Your task to perform on an android device: Do I have any events tomorrow? Image 0: 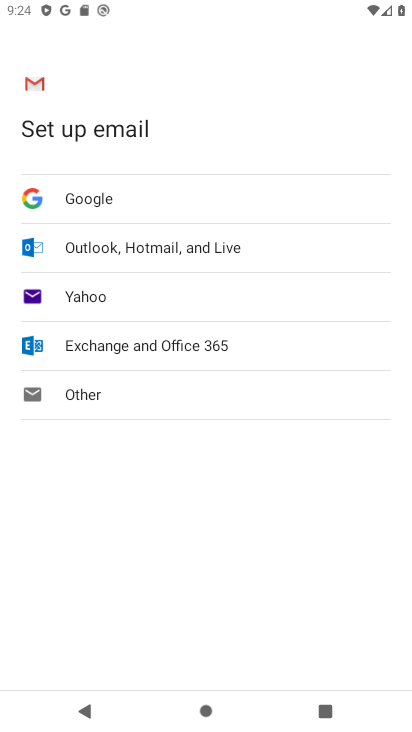
Step 0: press home button
Your task to perform on an android device: Do I have any events tomorrow? Image 1: 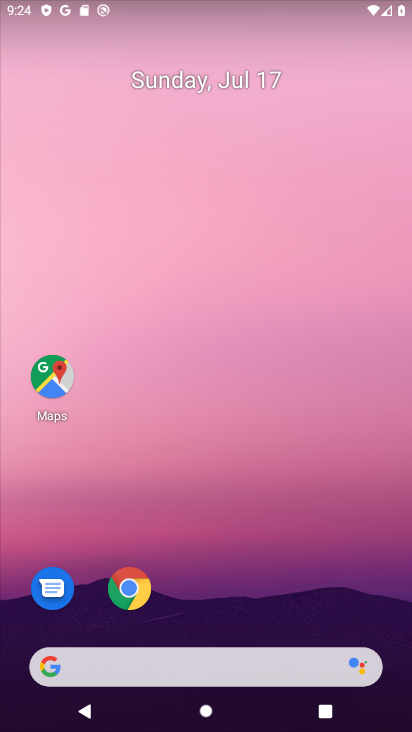
Step 1: drag from (210, 613) to (156, 104)
Your task to perform on an android device: Do I have any events tomorrow? Image 2: 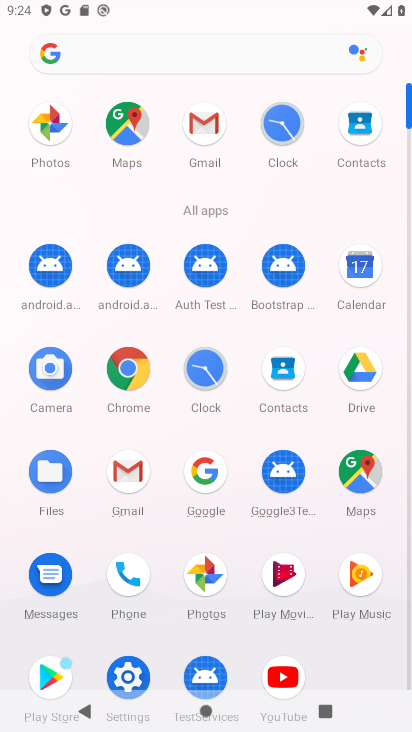
Step 2: click (349, 269)
Your task to perform on an android device: Do I have any events tomorrow? Image 3: 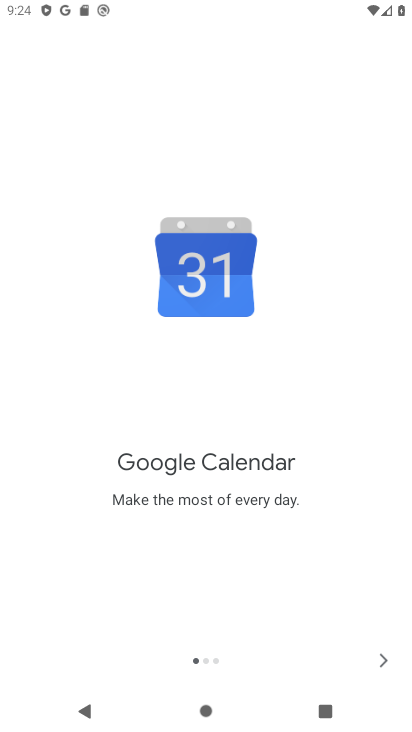
Step 3: click (383, 671)
Your task to perform on an android device: Do I have any events tomorrow? Image 4: 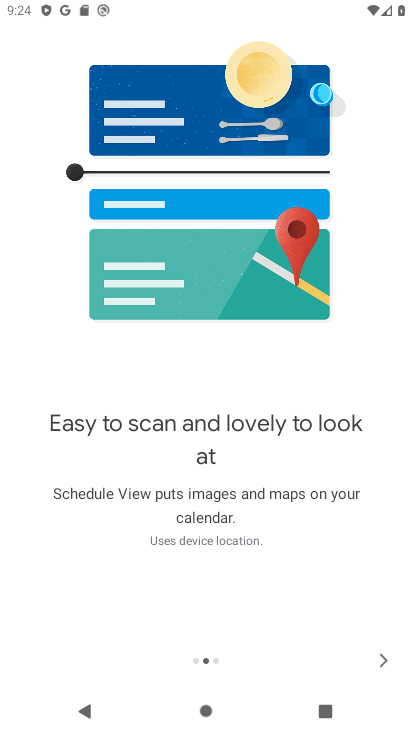
Step 4: click (382, 671)
Your task to perform on an android device: Do I have any events tomorrow? Image 5: 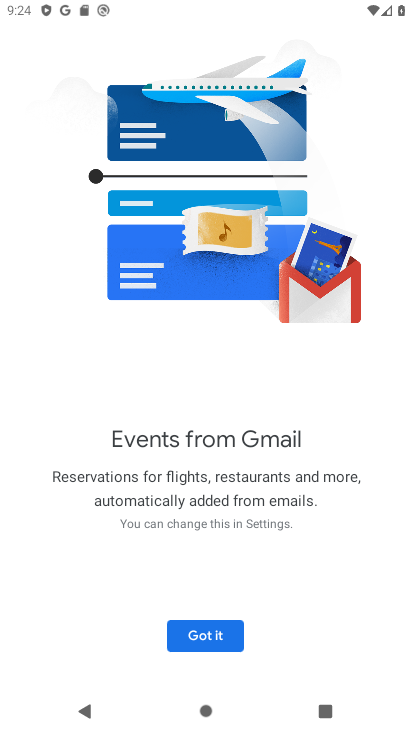
Step 5: click (218, 633)
Your task to perform on an android device: Do I have any events tomorrow? Image 6: 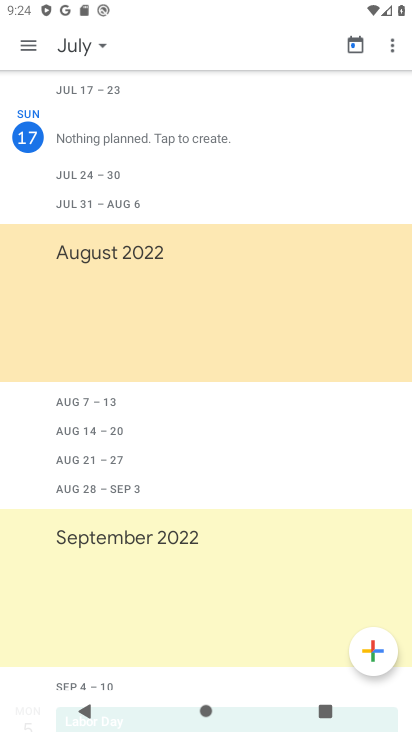
Step 6: click (33, 44)
Your task to perform on an android device: Do I have any events tomorrow? Image 7: 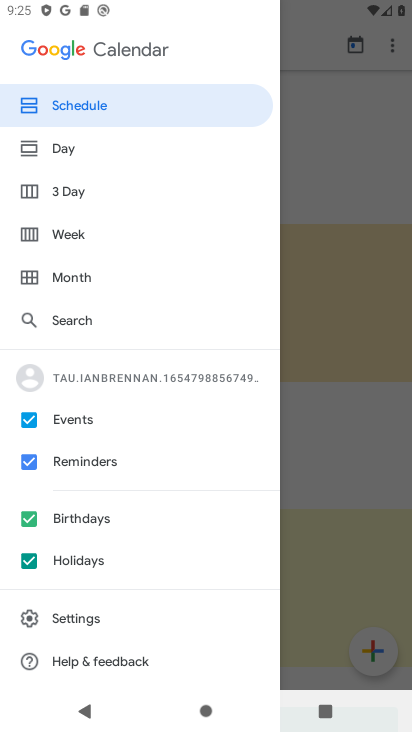
Step 7: click (25, 566)
Your task to perform on an android device: Do I have any events tomorrow? Image 8: 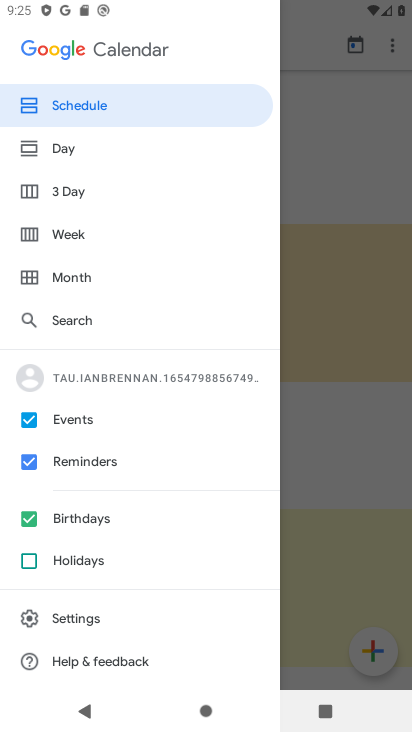
Step 8: click (26, 521)
Your task to perform on an android device: Do I have any events tomorrow? Image 9: 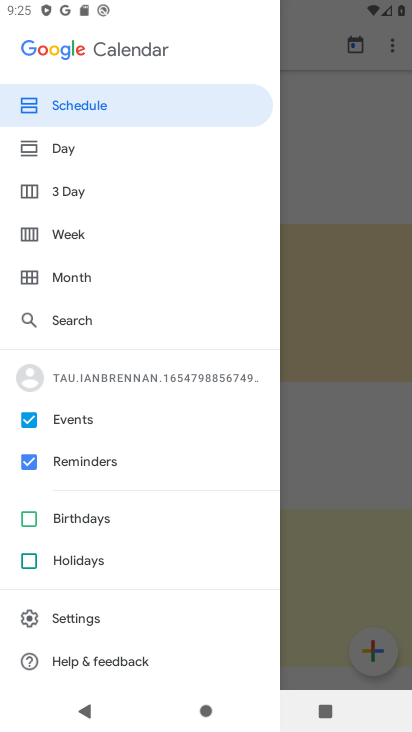
Step 9: click (23, 460)
Your task to perform on an android device: Do I have any events tomorrow? Image 10: 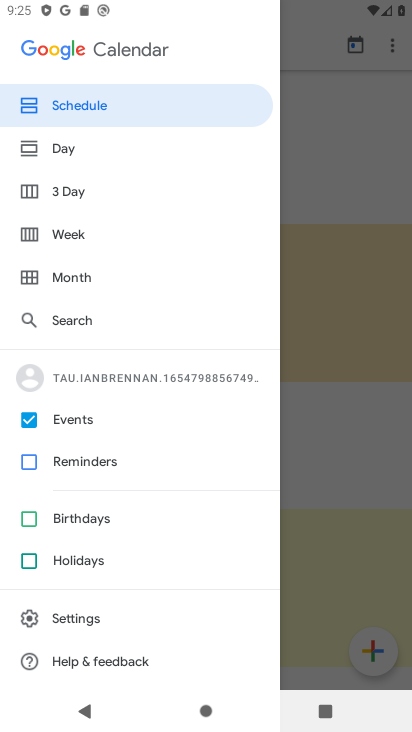
Step 10: click (61, 152)
Your task to perform on an android device: Do I have any events tomorrow? Image 11: 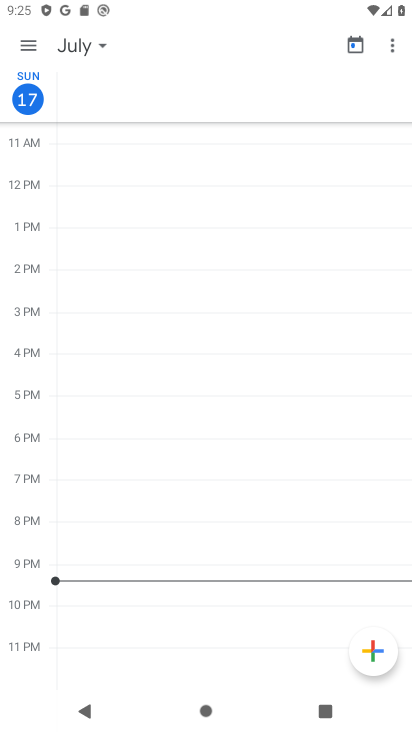
Step 11: task complete